Your task to perform on an android device: Open battery settings Image 0: 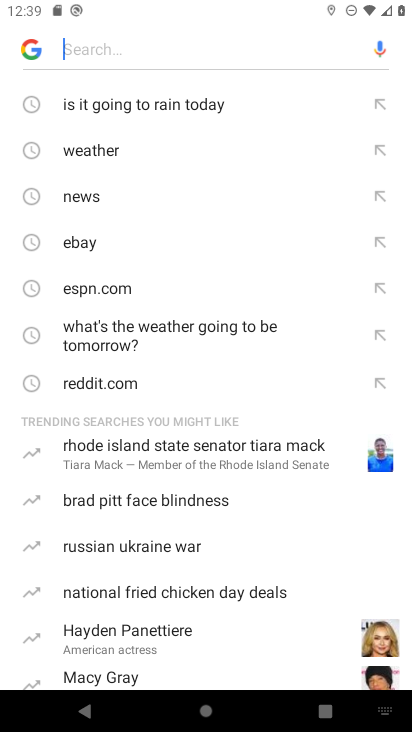
Step 0: press home button
Your task to perform on an android device: Open battery settings Image 1: 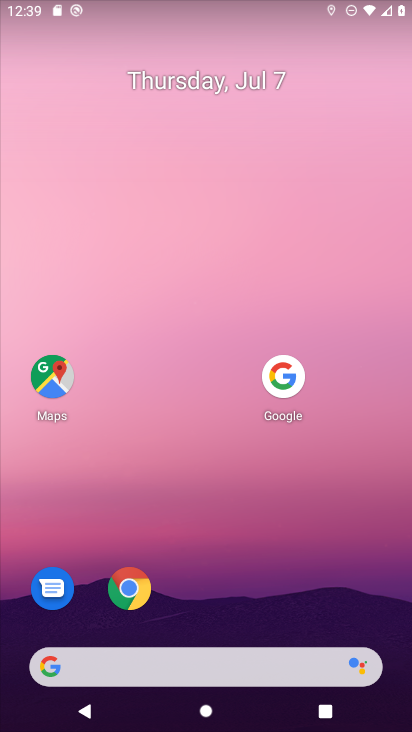
Step 1: drag from (217, 611) to (320, 4)
Your task to perform on an android device: Open battery settings Image 2: 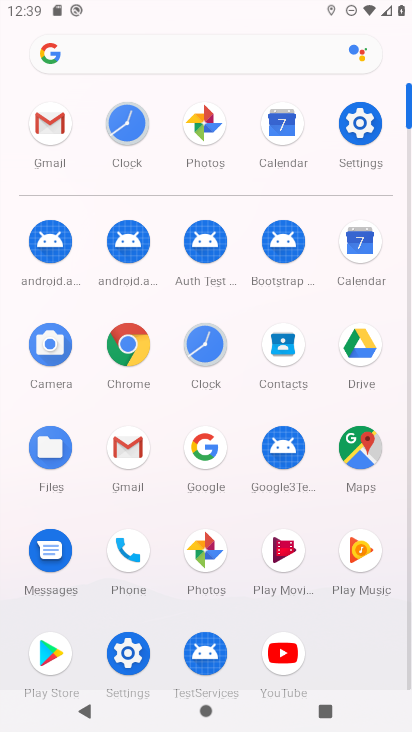
Step 2: click (352, 129)
Your task to perform on an android device: Open battery settings Image 3: 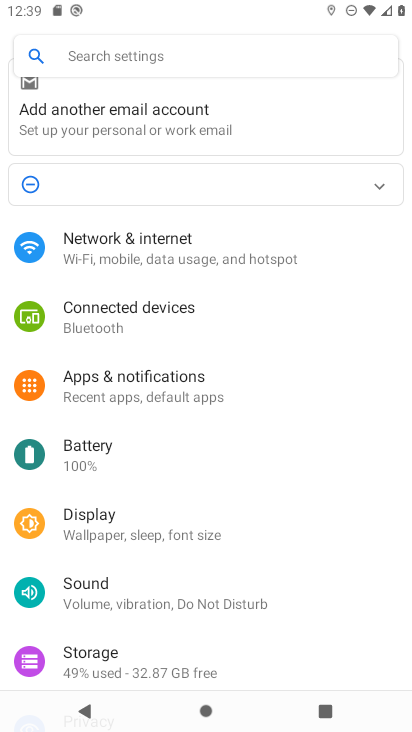
Step 3: click (95, 454)
Your task to perform on an android device: Open battery settings Image 4: 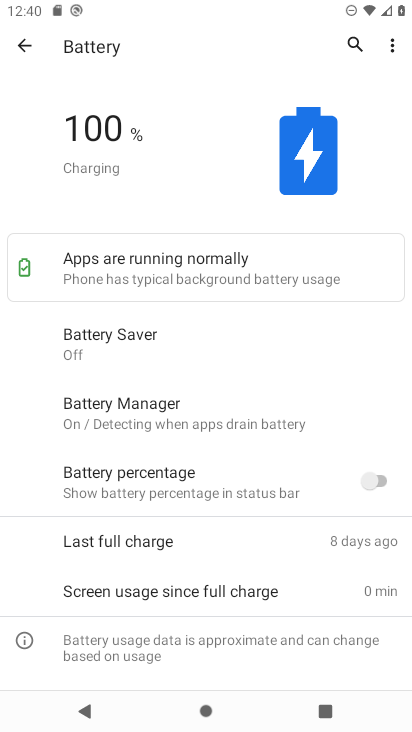
Step 4: task complete